Your task to perform on an android device: set the timer Image 0: 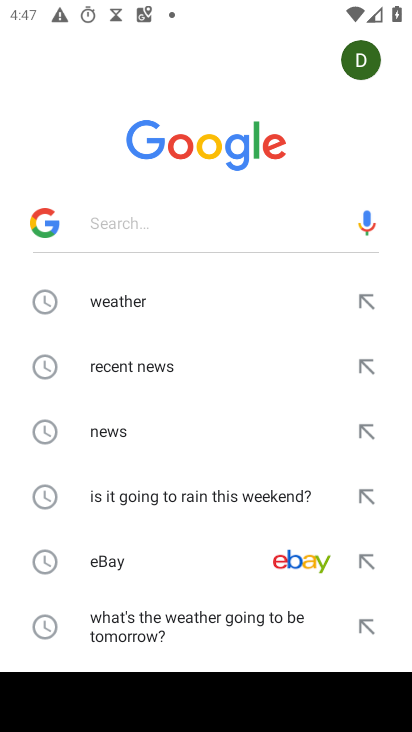
Step 0: press home button
Your task to perform on an android device: set the timer Image 1: 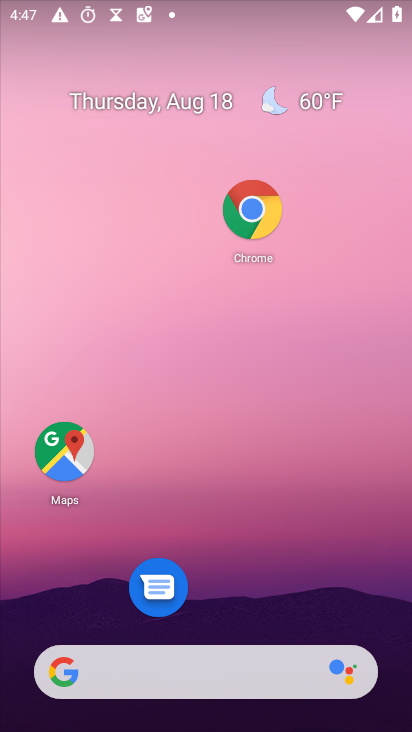
Step 1: drag from (274, 585) to (347, 103)
Your task to perform on an android device: set the timer Image 2: 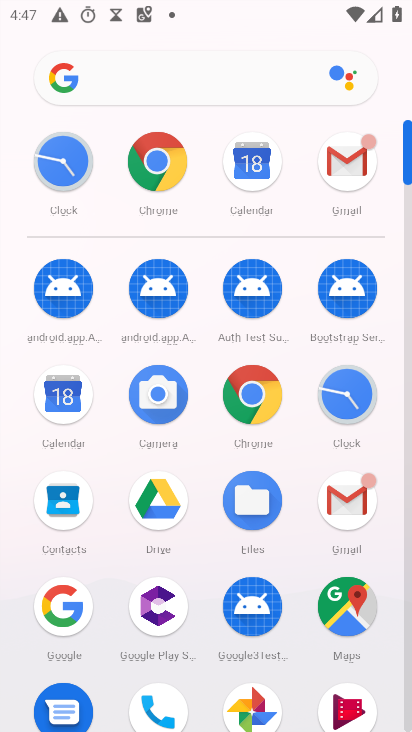
Step 2: click (325, 394)
Your task to perform on an android device: set the timer Image 3: 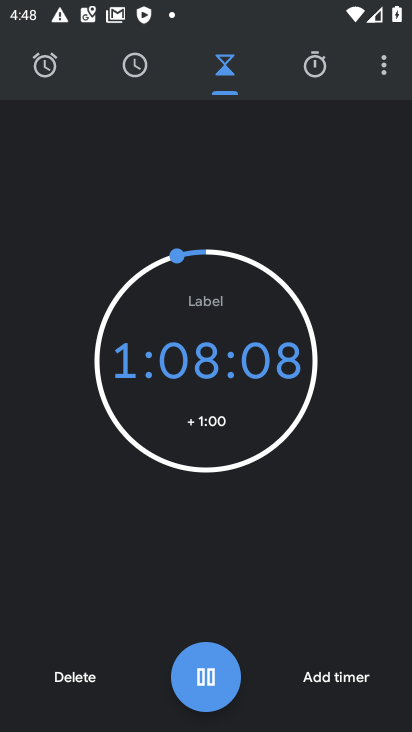
Step 3: task complete